Your task to perform on an android device: Open battery settings Image 0: 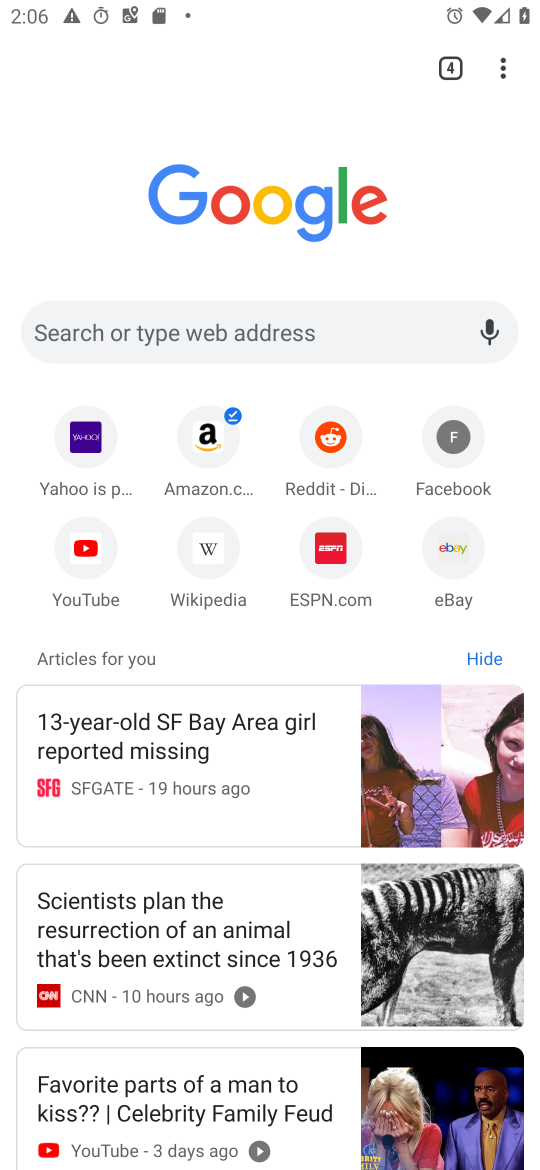
Step 0: press home button
Your task to perform on an android device: Open battery settings Image 1: 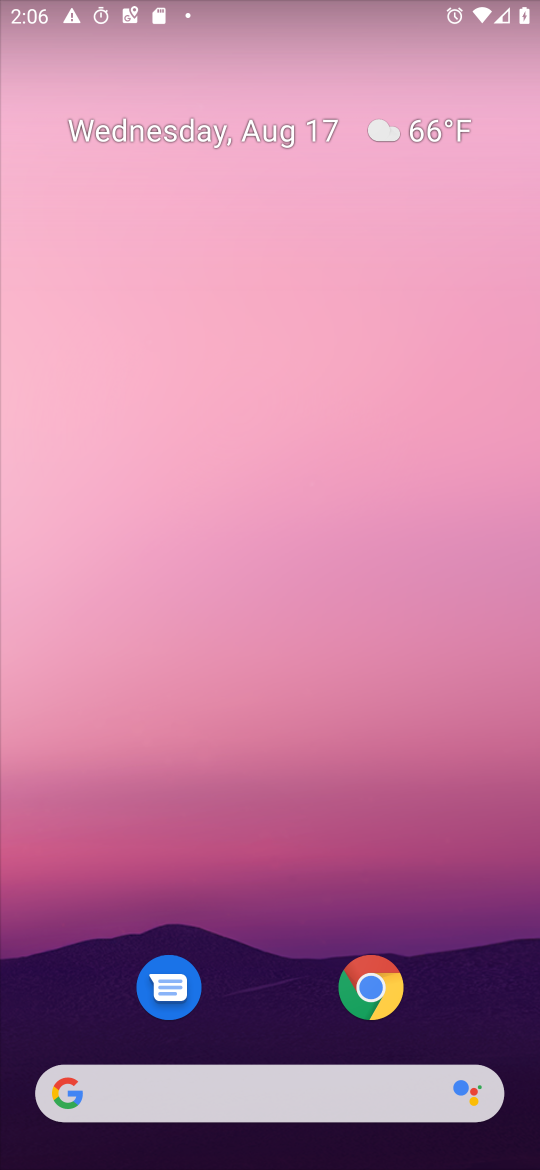
Step 1: drag from (56, 1124) to (211, 439)
Your task to perform on an android device: Open battery settings Image 2: 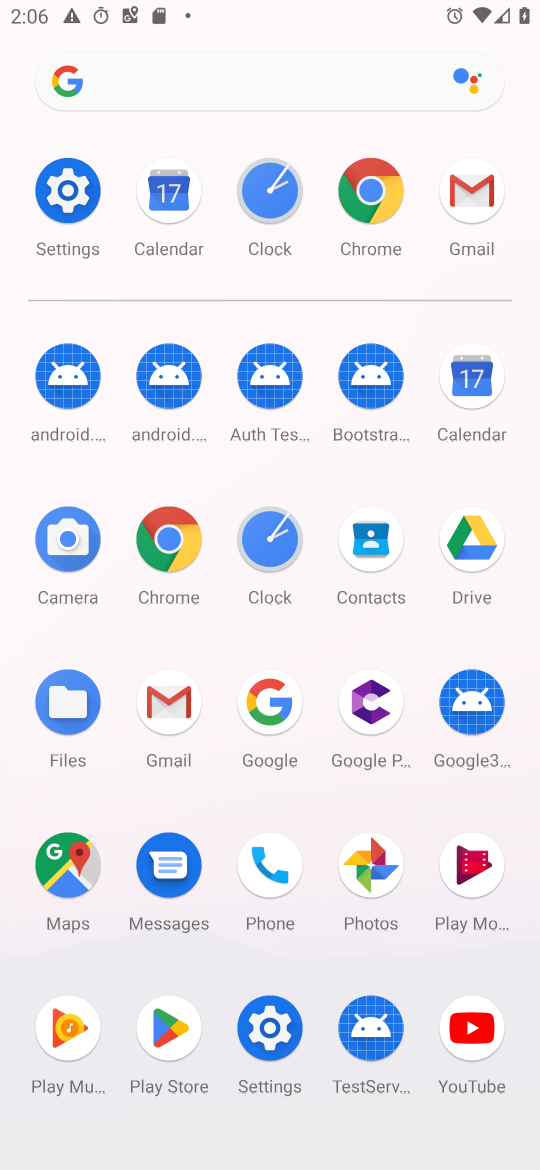
Step 2: click (280, 1026)
Your task to perform on an android device: Open battery settings Image 3: 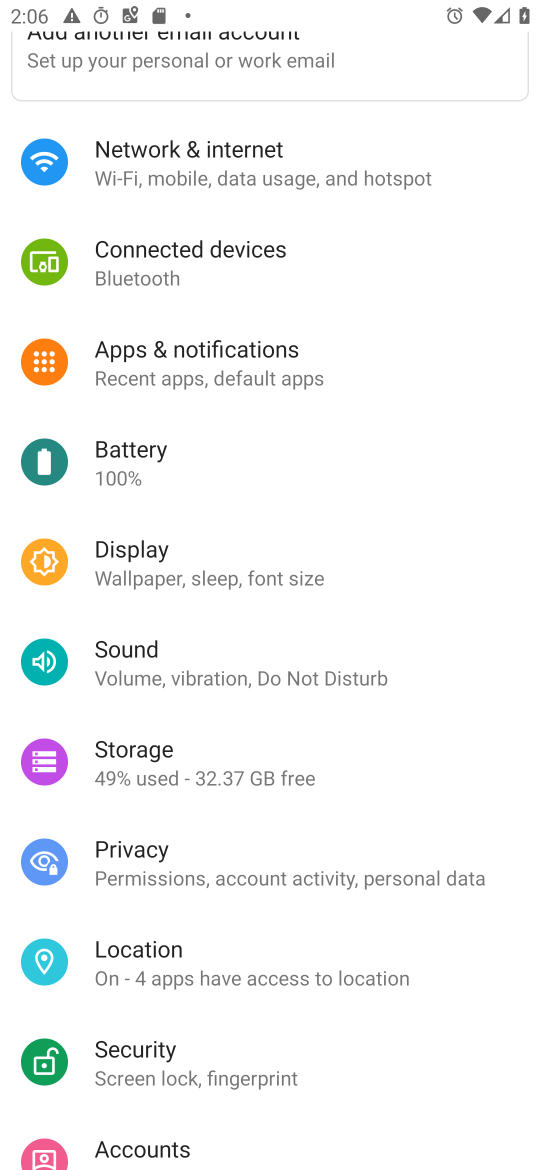
Step 3: click (145, 454)
Your task to perform on an android device: Open battery settings Image 4: 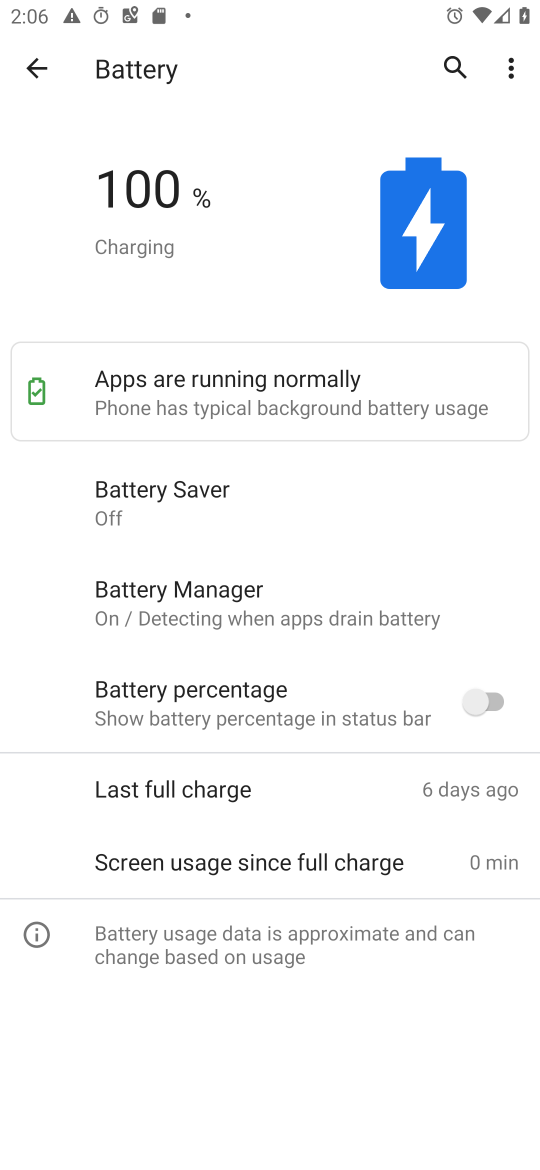
Step 4: task complete